Your task to perform on an android device: turn off smart reply in the gmail app Image 0: 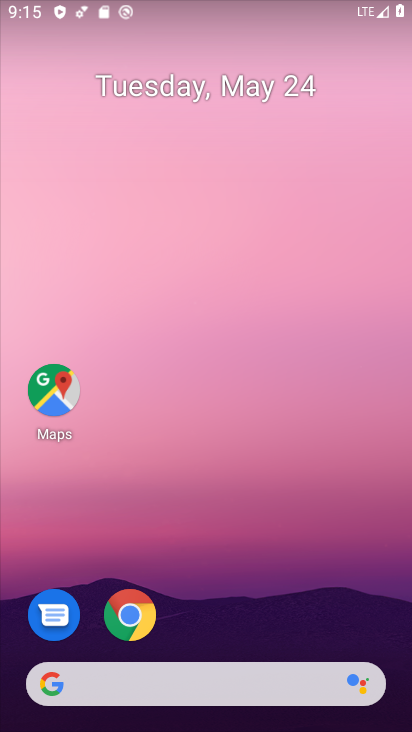
Step 0: drag from (213, 629) to (130, 81)
Your task to perform on an android device: turn off smart reply in the gmail app Image 1: 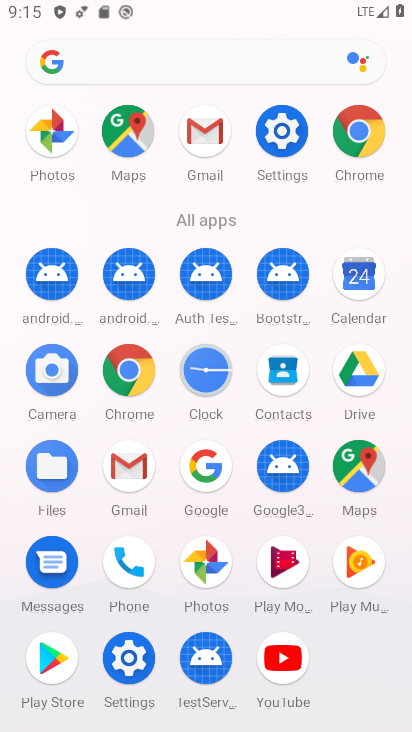
Step 1: click (201, 132)
Your task to perform on an android device: turn off smart reply in the gmail app Image 2: 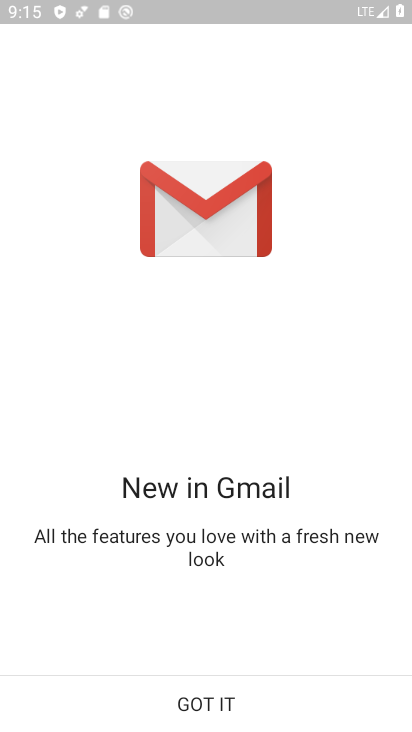
Step 2: click (262, 699)
Your task to perform on an android device: turn off smart reply in the gmail app Image 3: 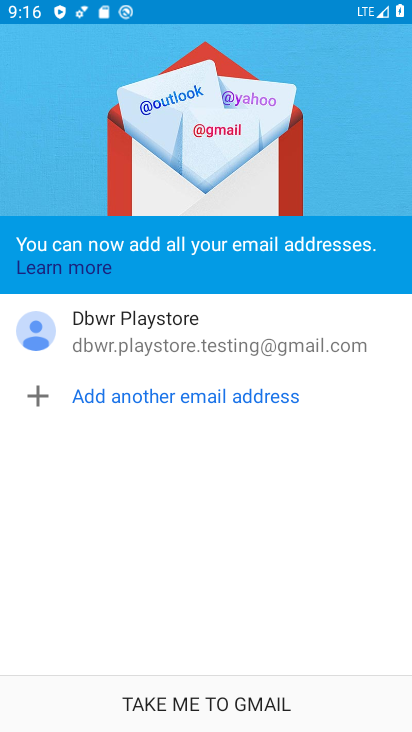
Step 3: click (183, 705)
Your task to perform on an android device: turn off smart reply in the gmail app Image 4: 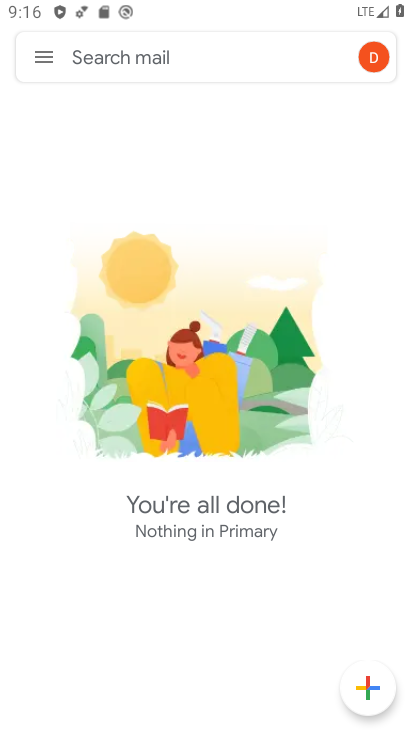
Step 4: click (35, 46)
Your task to perform on an android device: turn off smart reply in the gmail app Image 5: 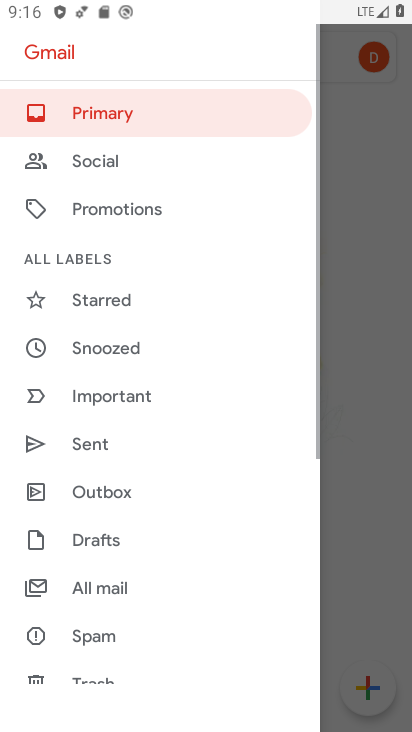
Step 5: drag from (163, 611) to (147, 212)
Your task to perform on an android device: turn off smart reply in the gmail app Image 6: 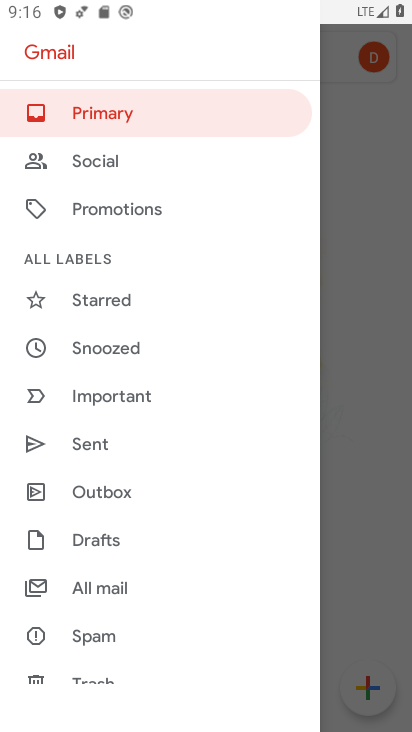
Step 6: drag from (70, 575) to (61, 178)
Your task to perform on an android device: turn off smart reply in the gmail app Image 7: 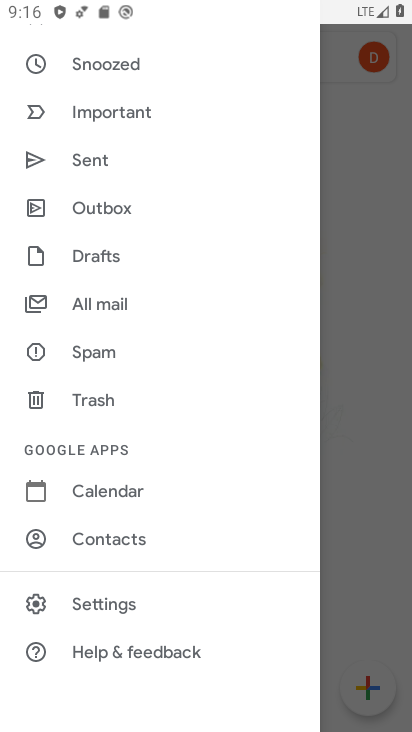
Step 7: click (119, 605)
Your task to perform on an android device: turn off smart reply in the gmail app Image 8: 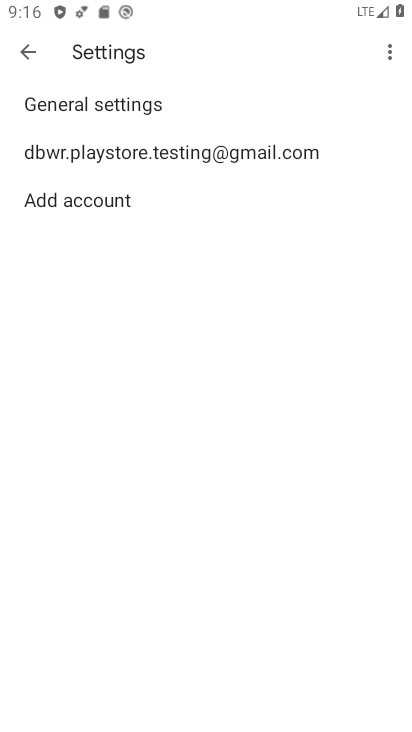
Step 8: click (132, 160)
Your task to perform on an android device: turn off smart reply in the gmail app Image 9: 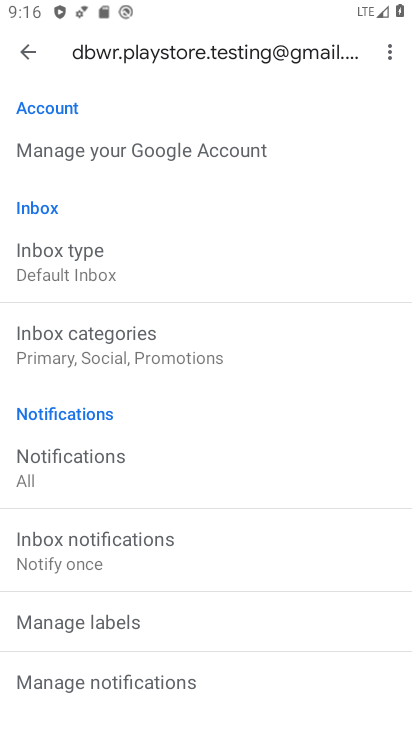
Step 9: drag from (129, 601) to (118, 191)
Your task to perform on an android device: turn off smart reply in the gmail app Image 10: 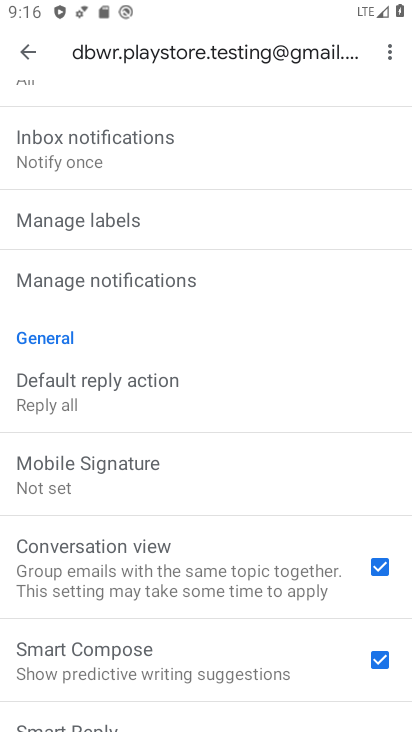
Step 10: drag from (152, 592) to (177, 134)
Your task to perform on an android device: turn off smart reply in the gmail app Image 11: 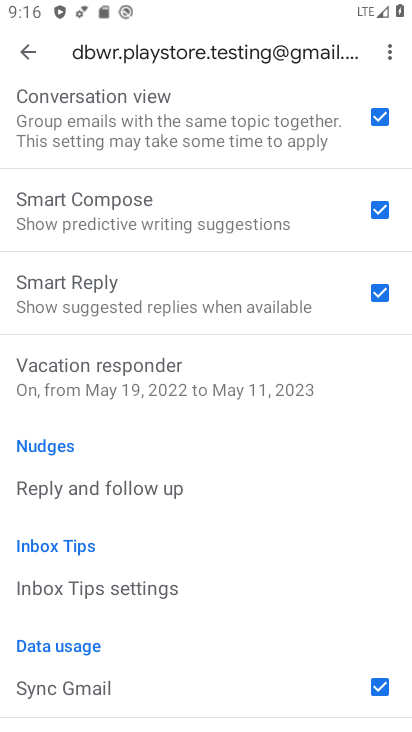
Step 11: click (358, 301)
Your task to perform on an android device: turn off smart reply in the gmail app Image 12: 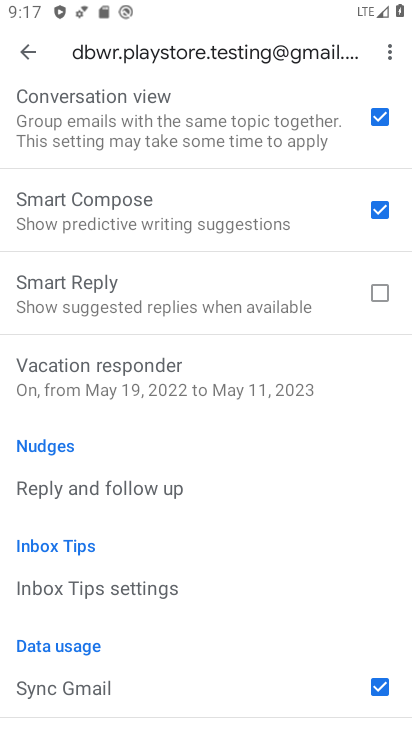
Step 12: task complete